Your task to perform on an android device: turn off airplane mode Image 0: 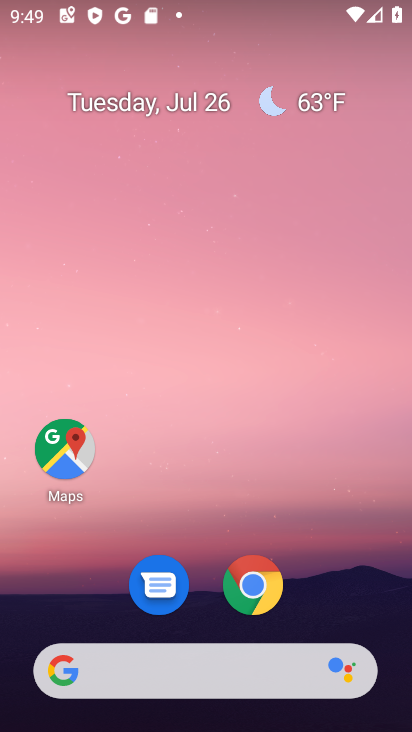
Step 0: drag from (299, 602) to (268, 0)
Your task to perform on an android device: turn off airplane mode Image 1: 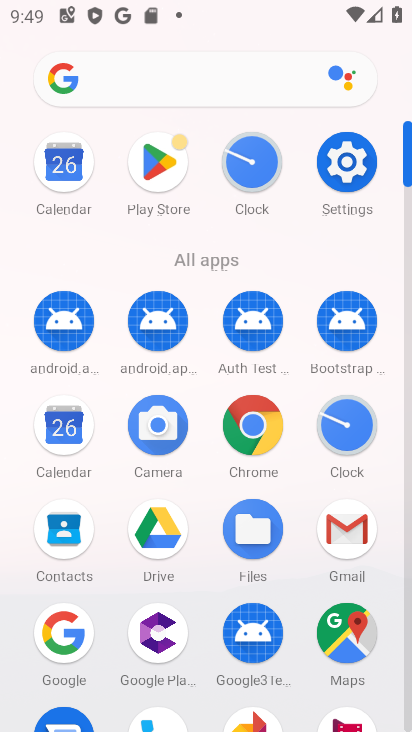
Step 1: click (355, 159)
Your task to perform on an android device: turn off airplane mode Image 2: 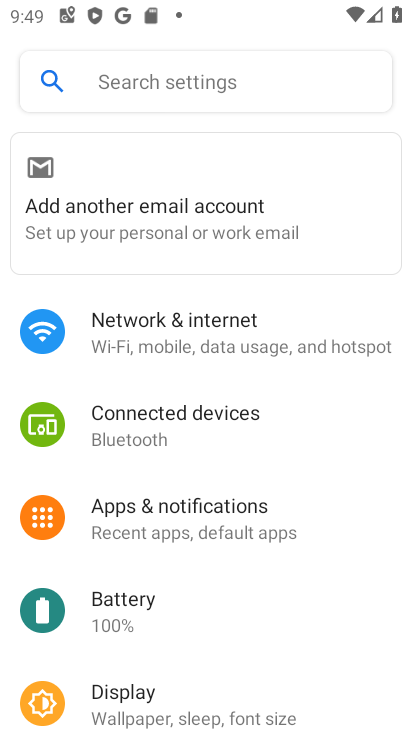
Step 2: drag from (266, 557) to (276, 410)
Your task to perform on an android device: turn off airplane mode Image 3: 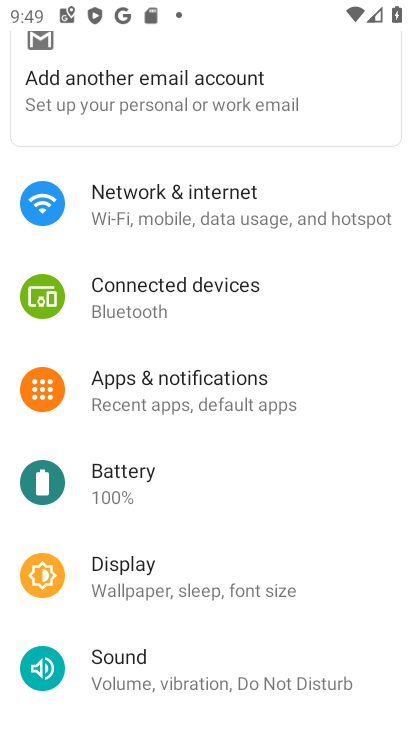
Step 3: drag from (276, 338) to (280, 172)
Your task to perform on an android device: turn off airplane mode Image 4: 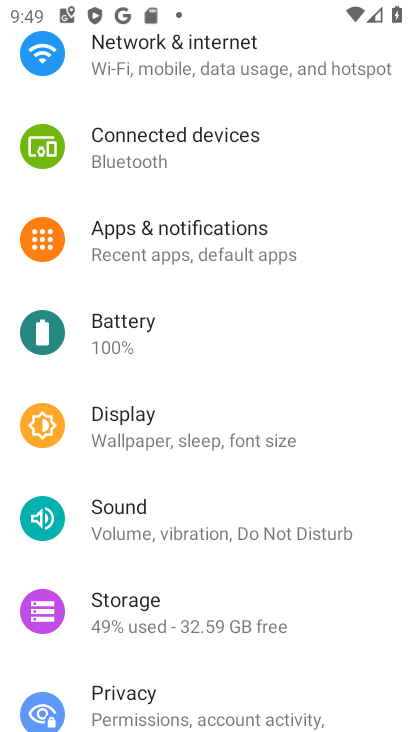
Step 4: drag from (242, 175) to (278, 683)
Your task to perform on an android device: turn off airplane mode Image 5: 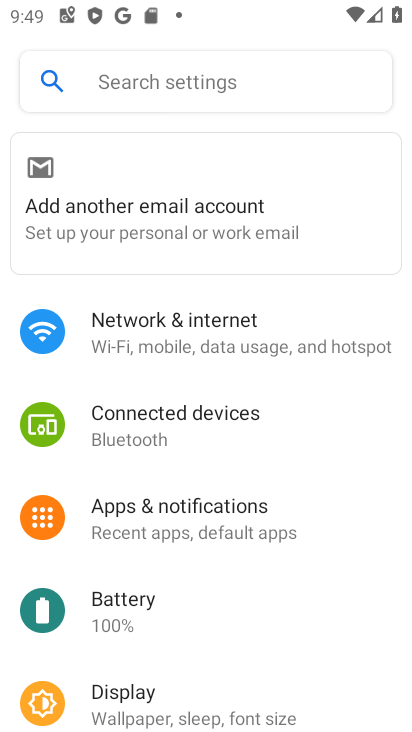
Step 5: click (240, 349)
Your task to perform on an android device: turn off airplane mode Image 6: 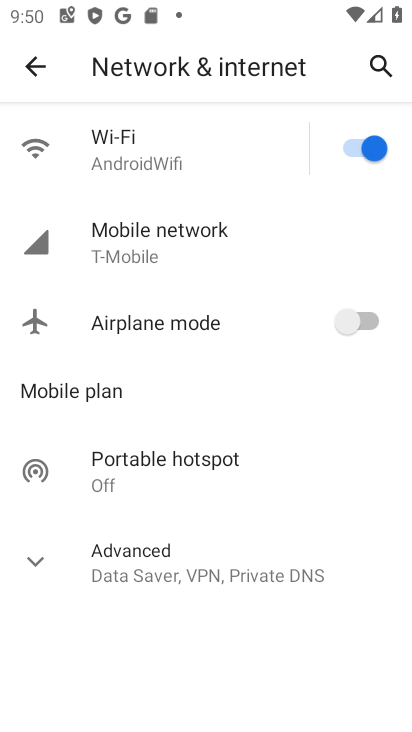
Step 6: task complete